Your task to perform on an android device: Open Yahoo.com Image 0: 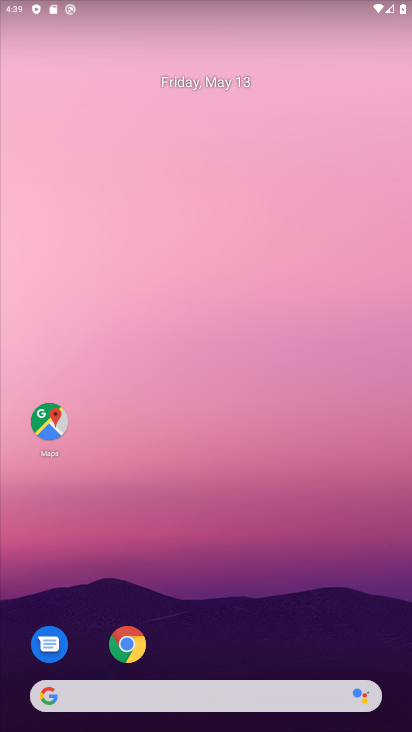
Step 0: click (148, 649)
Your task to perform on an android device: Open Yahoo.com Image 1: 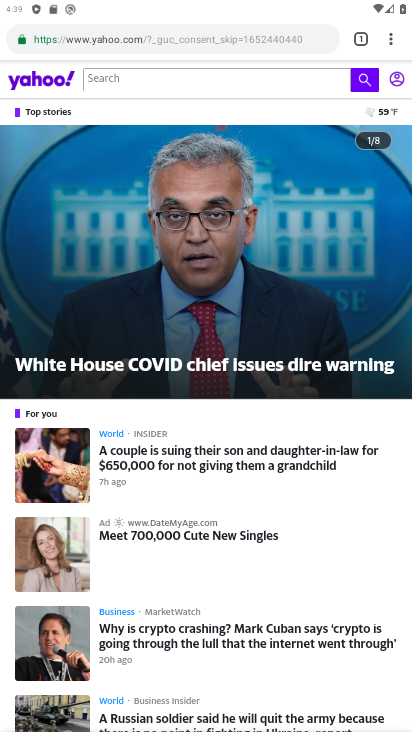
Step 1: task complete